Your task to perform on an android device: toggle priority inbox in the gmail app Image 0: 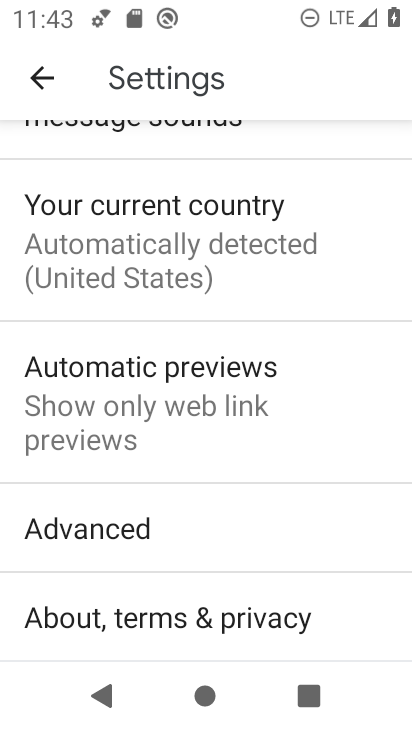
Step 0: press home button
Your task to perform on an android device: toggle priority inbox in the gmail app Image 1: 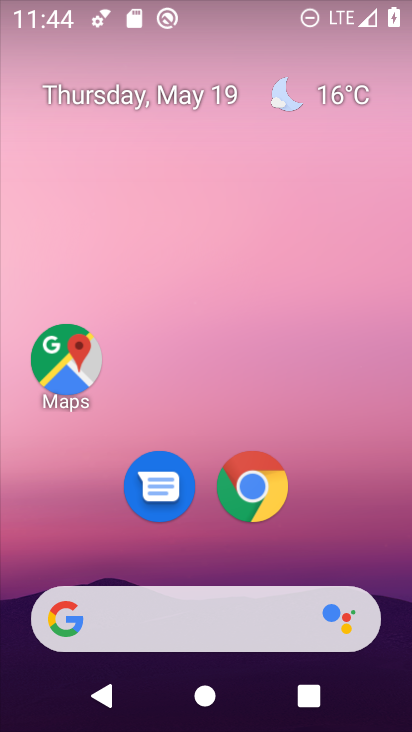
Step 1: drag from (328, 532) to (333, 132)
Your task to perform on an android device: toggle priority inbox in the gmail app Image 2: 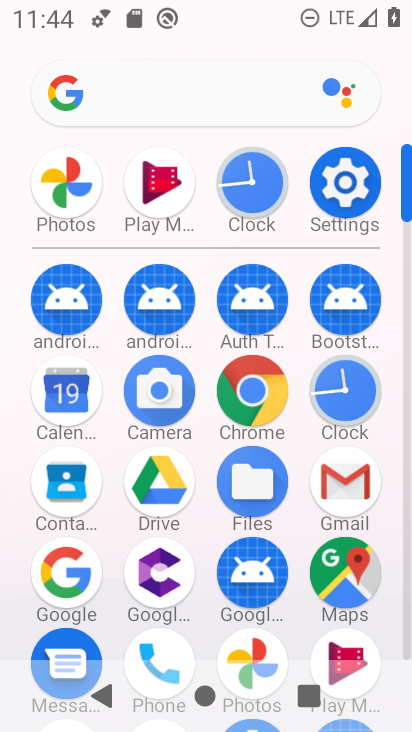
Step 2: click (346, 490)
Your task to perform on an android device: toggle priority inbox in the gmail app Image 3: 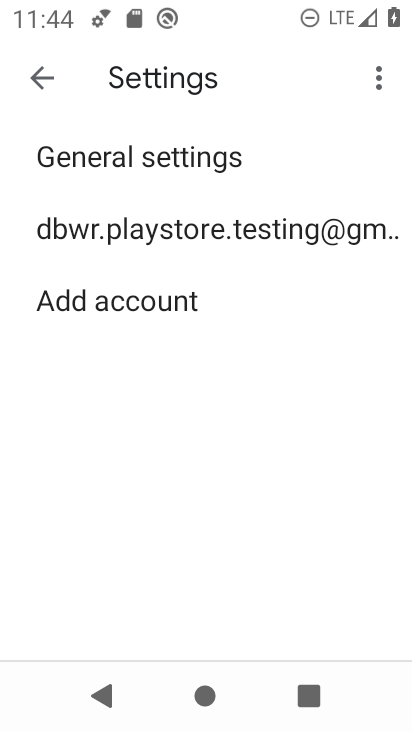
Step 3: click (27, 78)
Your task to perform on an android device: toggle priority inbox in the gmail app Image 4: 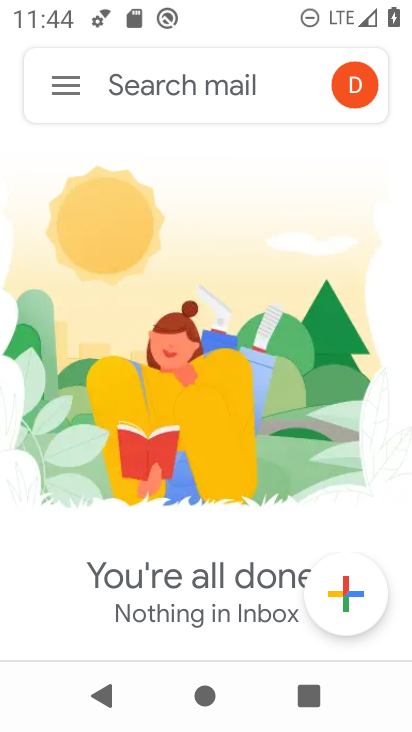
Step 4: click (51, 78)
Your task to perform on an android device: toggle priority inbox in the gmail app Image 5: 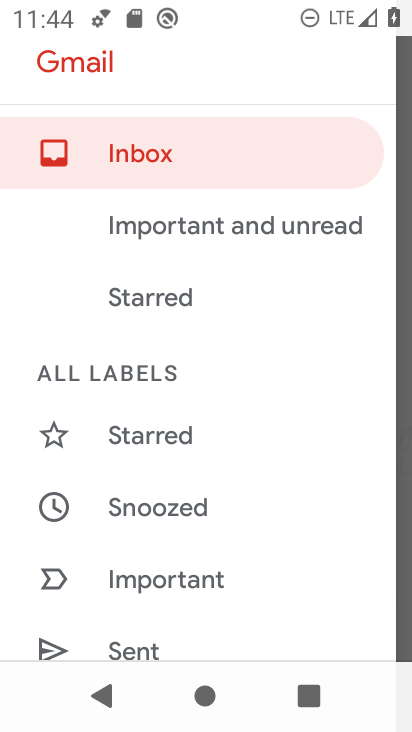
Step 5: drag from (145, 539) to (183, 247)
Your task to perform on an android device: toggle priority inbox in the gmail app Image 6: 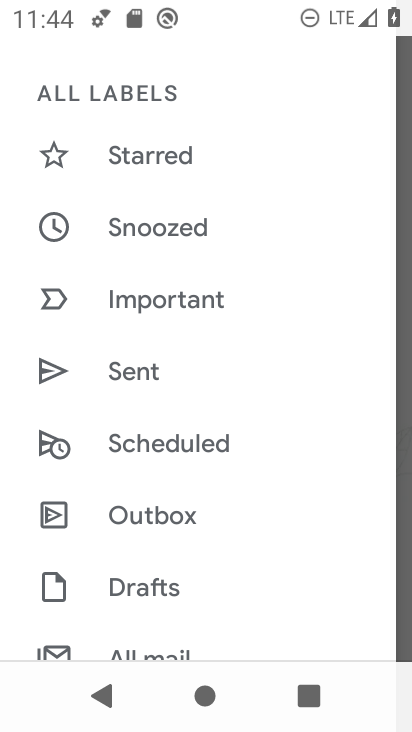
Step 6: drag from (206, 566) to (224, 323)
Your task to perform on an android device: toggle priority inbox in the gmail app Image 7: 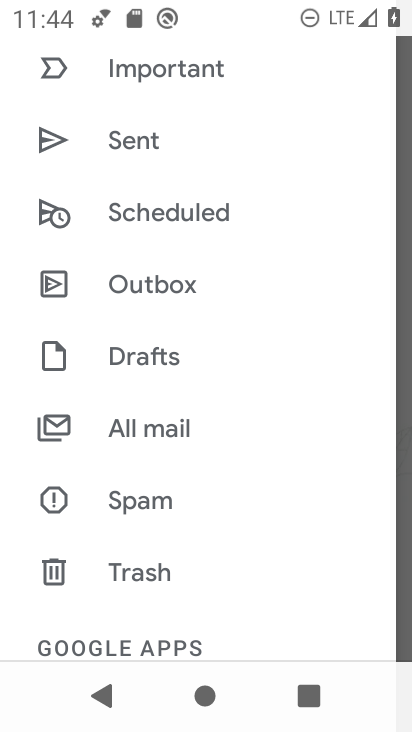
Step 7: drag from (201, 621) to (237, 337)
Your task to perform on an android device: toggle priority inbox in the gmail app Image 8: 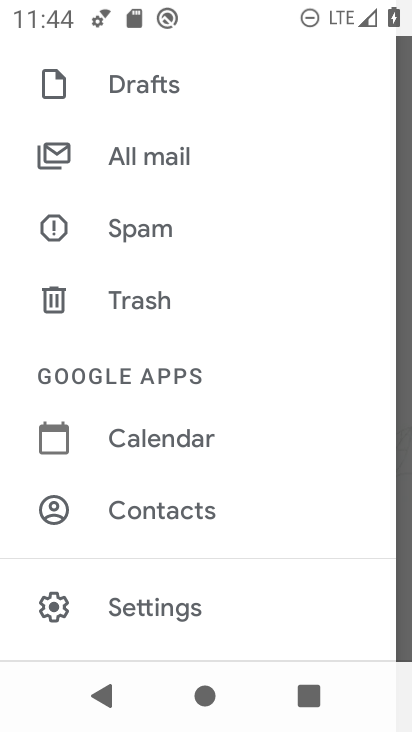
Step 8: click (224, 596)
Your task to perform on an android device: toggle priority inbox in the gmail app Image 9: 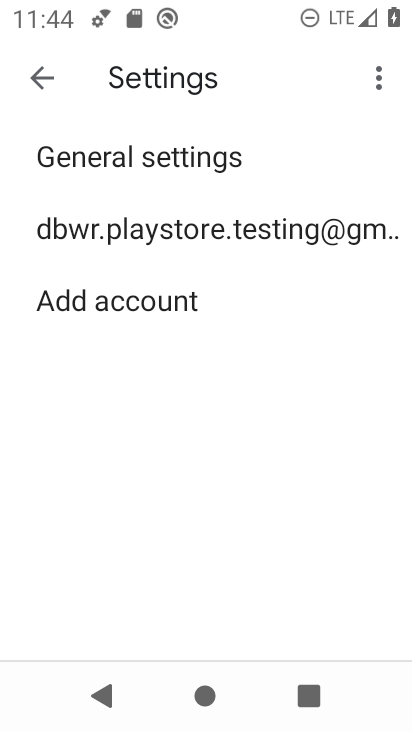
Step 9: click (89, 211)
Your task to perform on an android device: toggle priority inbox in the gmail app Image 10: 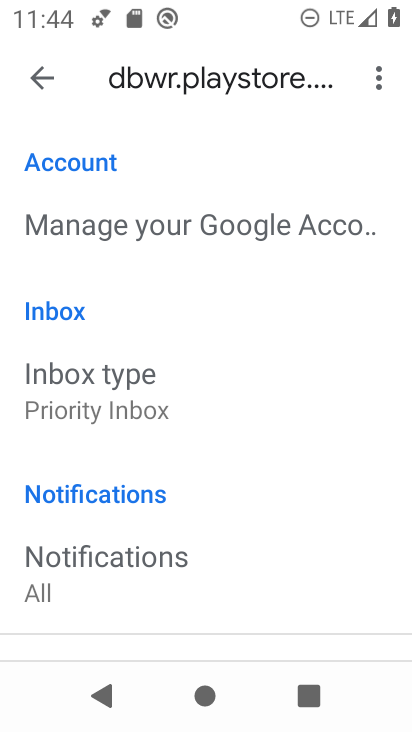
Step 10: click (122, 425)
Your task to perform on an android device: toggle priority inbox in the gmail app Image 11: 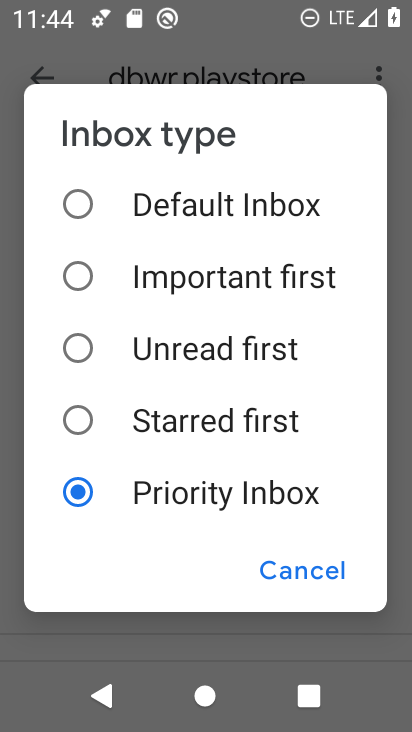
Step 11: task complete